Your task to perform on an android device: add a contact Image 0: 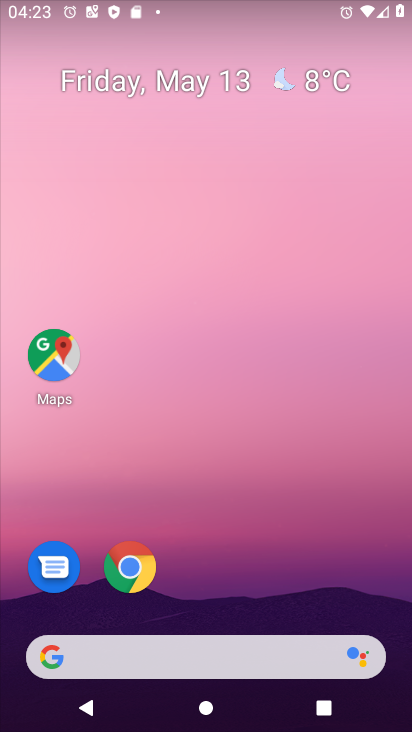
Step 0: drag from (297, 611) to (360, 28)
Your task to perform on an android device: add a contact Image 1: 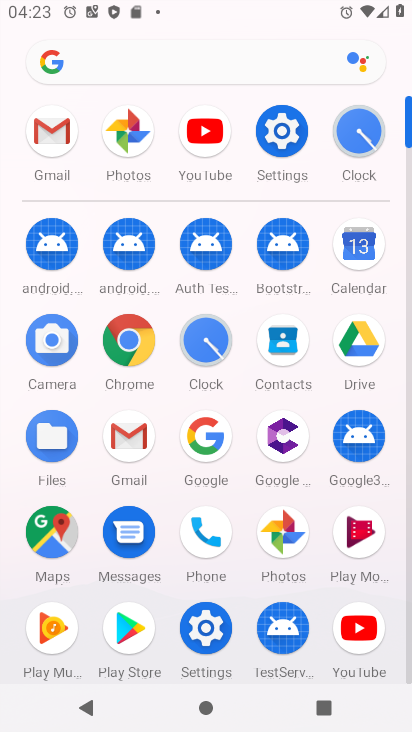
Step 1: click (278, 340)
Your task to perform on an android device: add a contact Image 2: 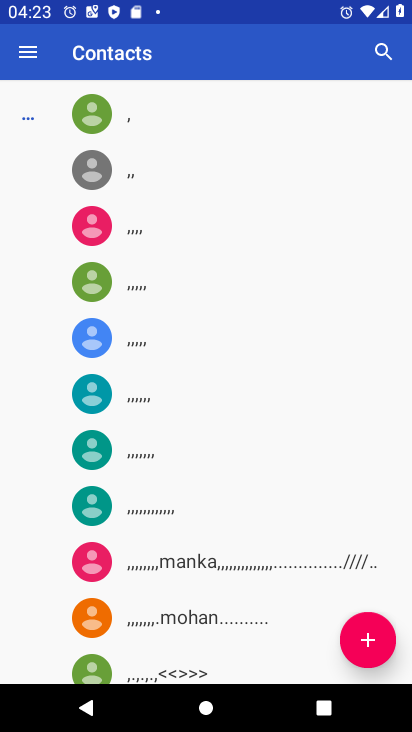
Step 2: click (362, 647)
Your task to perform on an android device: add a contact Image 3: 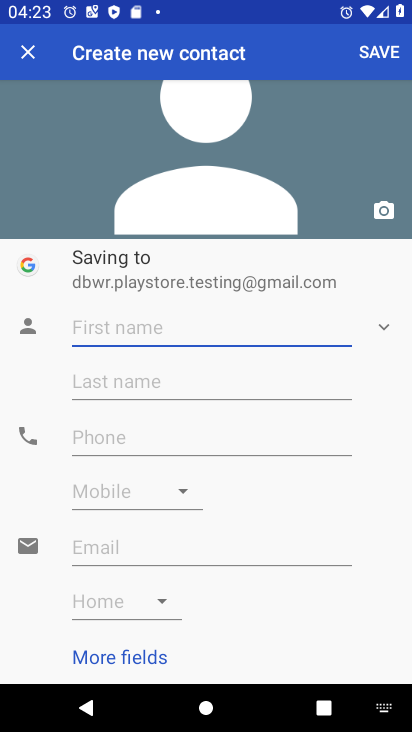
Step 3: click (124, 314)
Your task to perform on an android device: add a contact Image 4: 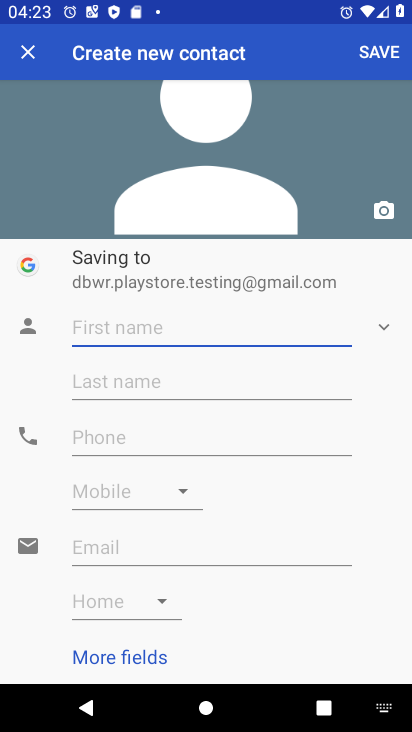
Step 4: type "laila"
Your task to perform on an android device: add a contact Image 5: 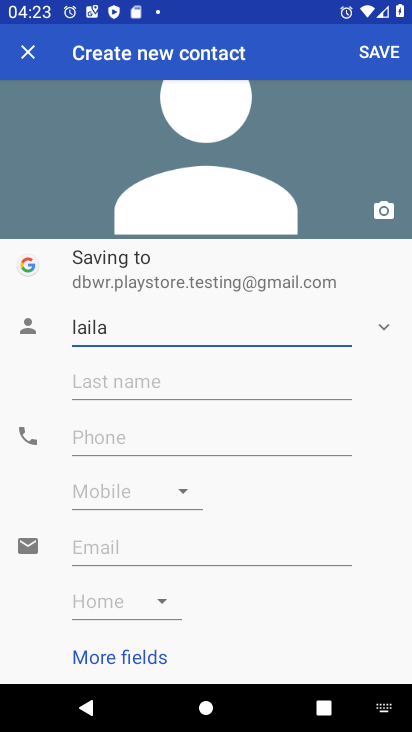
Step 5: click (92, 426)
Your task to perform on an android device: add a contact Image 6: 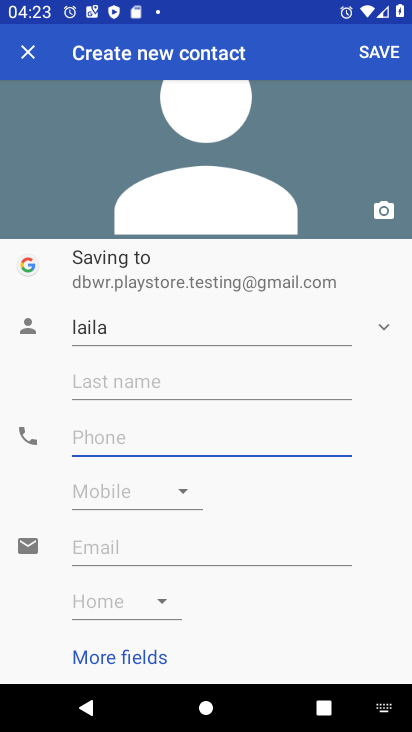
Step 6: type "988766544"
Your task to perform on an android device: add a contact Image 7: 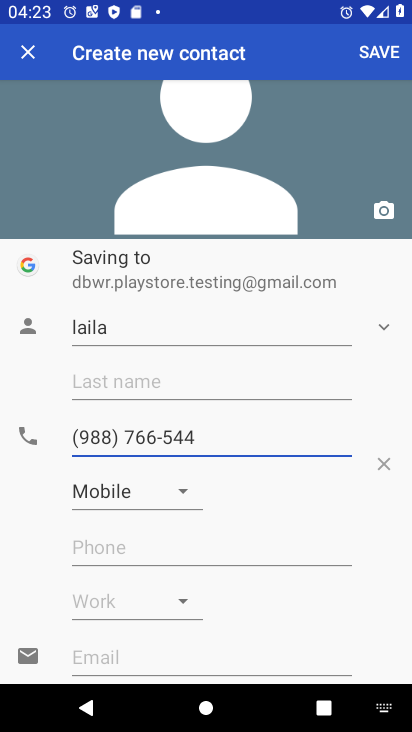
Step 7: click (386, 44)
Your task to perform on an android device: add a contact Image 8: 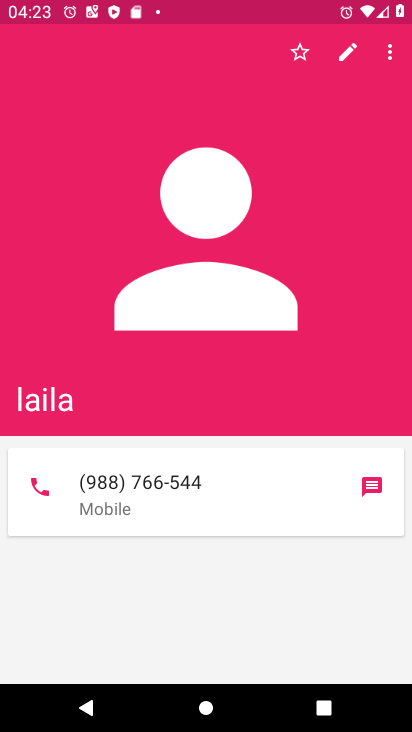
Step 8: task complete